Your task to perform on an android device: Open calendar and show me the fourth week of next month Image 0: 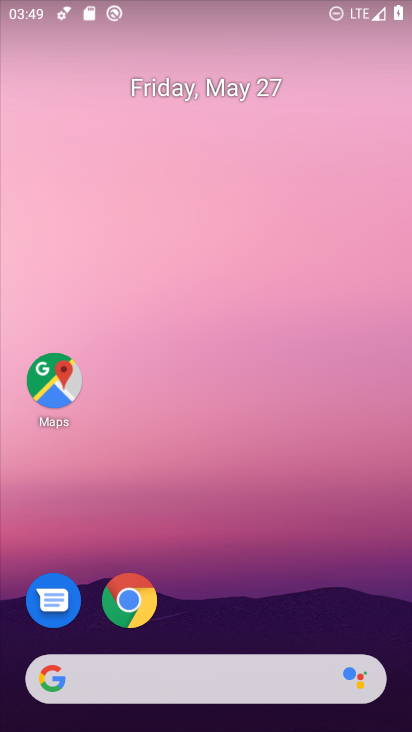
Step 0: drag from (186, 713) to (195, 228)
Your task to perform on an android device: Open calendar and show me the fourth week of next month Image 1: 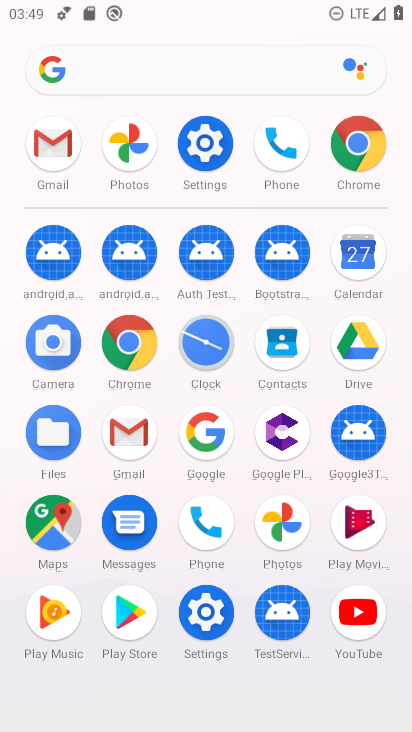
Step 1: click (359, 259)
Your task to perform on an android device: Open calendar and show me the fourth week of next month Image 2: 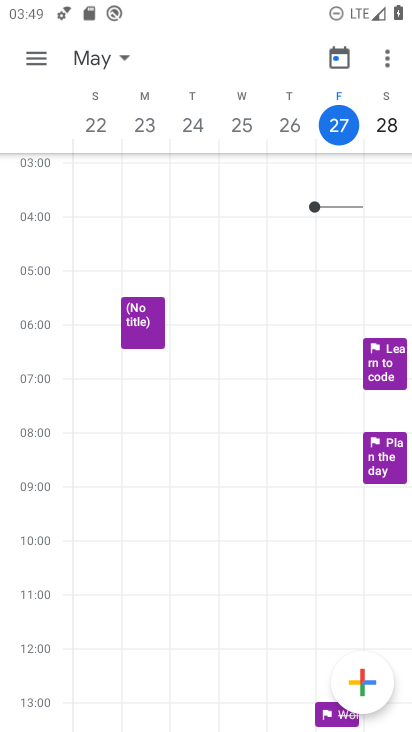
Step 2: click (126, 52)
Your task to perform on an android device: Open calendar and show me the fourth week of next month Image 3: 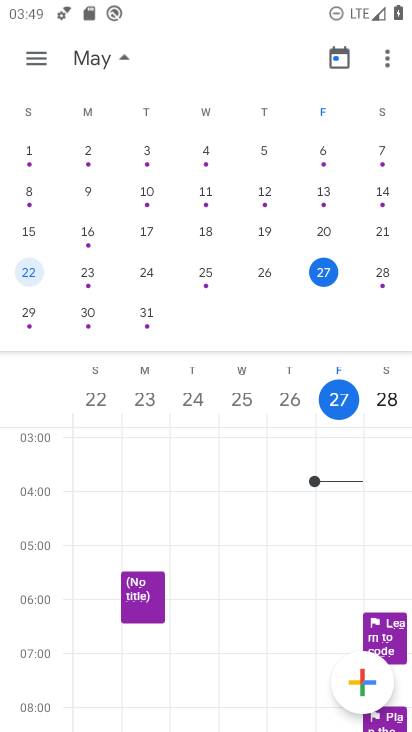
Step 3: drag from (338, 266) to (27, 217)
Your task to perform on an android device: Open calendar and show me the fourth week of next month Image 4: 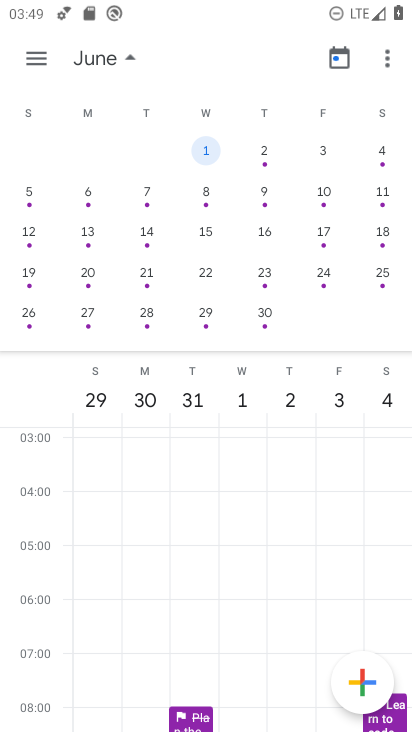
Step 4: click (86, 309)
Your task to perform on an android device: Open calendar and show me the fourth week of next month Image 5: 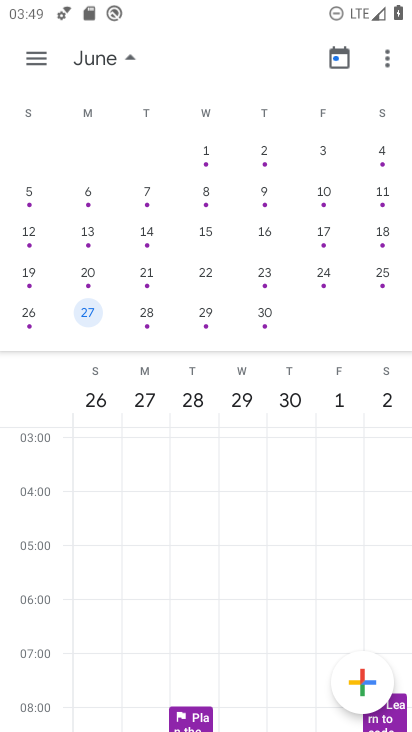
Step 5: click (29, 59)
Your task to perform on an android device: Open calendar and show me the fourth week of next month Image 6: 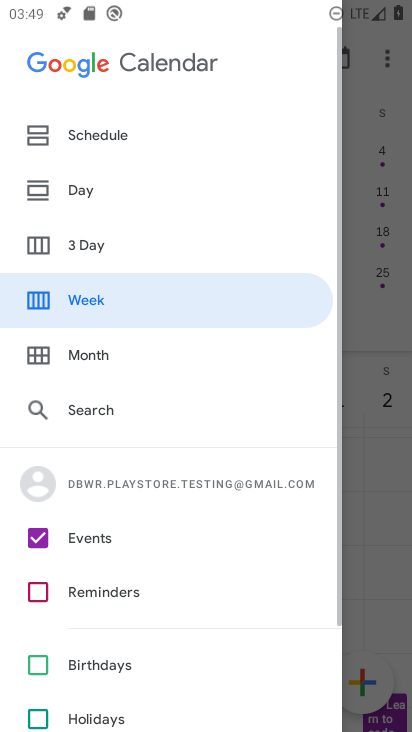
Step 6: click (89, 295)
Your task to perform on an android device: Open calendar and show me the fourth week of next month Image 7: 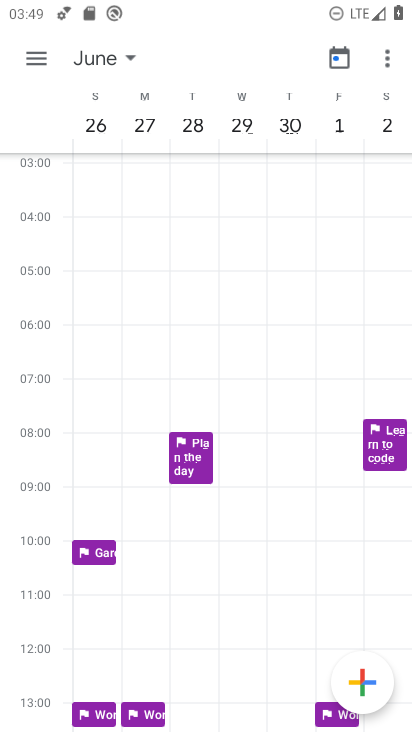
Step 7: task complete